Your task to perform on an android device: Open settings Image 0: 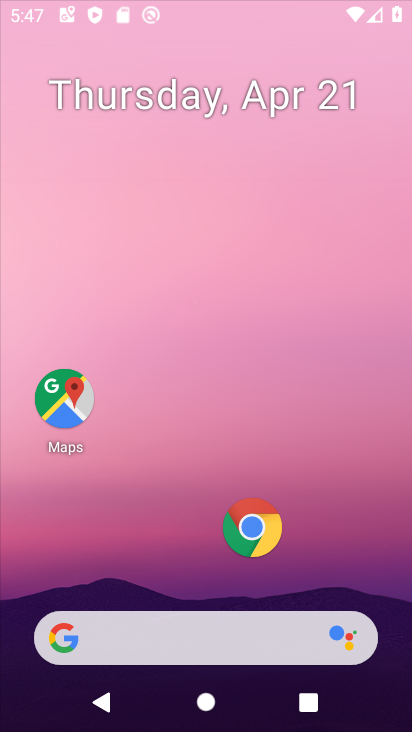
Step 0: click (250, 541)
Your task to perform on an android device: Open settings Image 1: 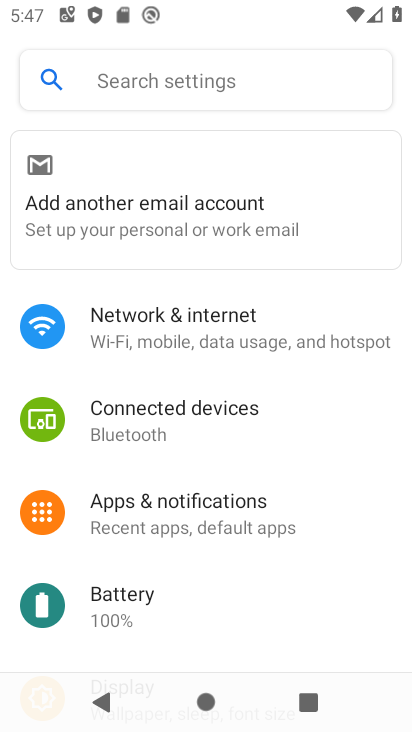
Step 1: task complete